Your task to perform on an android device: Show me recent news Image 0: 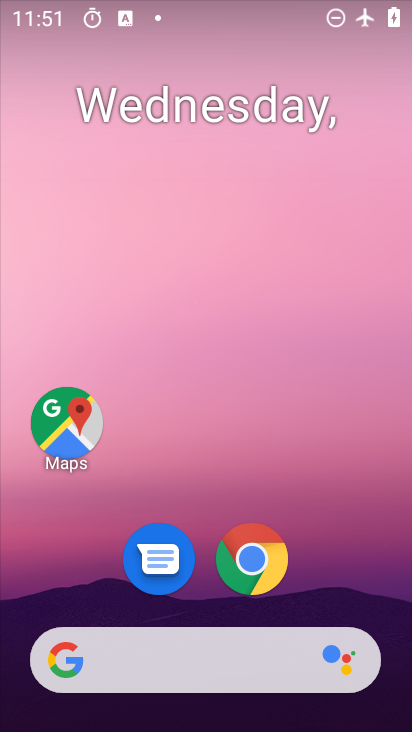
Step 0: drag from (190, 603) to (222, 228)
Your task to perform on an android device: Show me recent news Image 1: 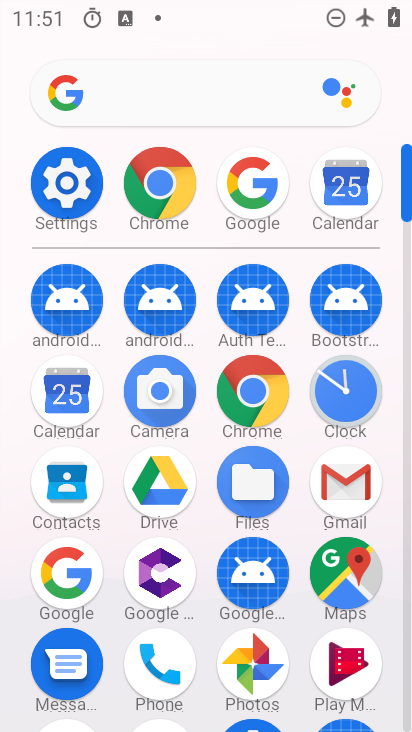
Step 1: click (70, 567)
Your task to perform on an android device: Show me recent news Image 2: 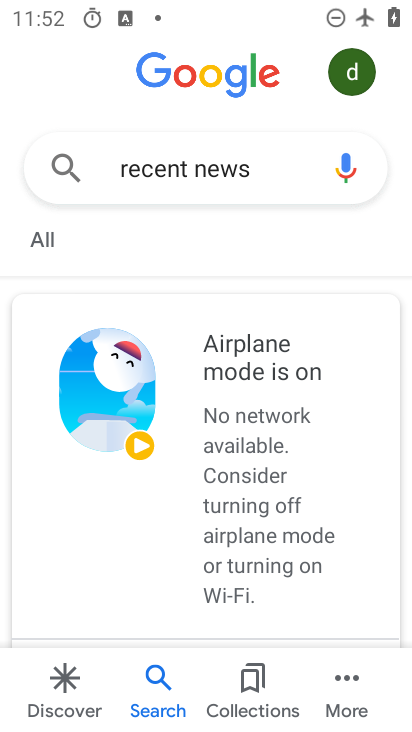
Step 2: task complete